Your task to perform on an android device: Open calendar and show me the second week of next month Image 0: 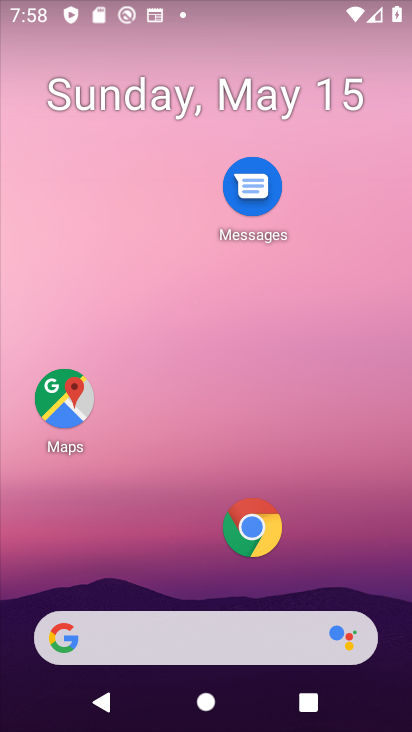
Step 0: press home button
Your task to perform on an android device: Open calendar and show me the second week of next month Image 1: 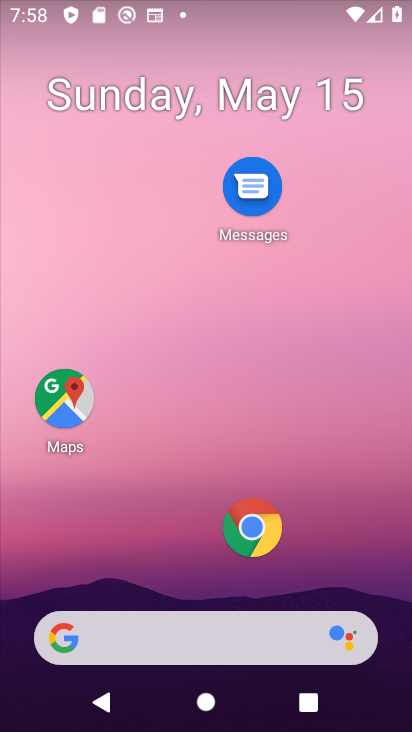
Step 1: drag from (138, 645) to (332, 95)
Your task to perform on an android device: Open calendar and show me the second week of next month Image 2: 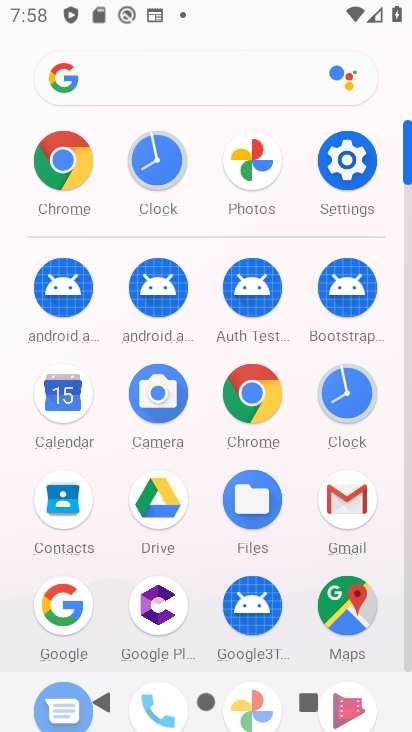
Step 2: click (69, 401)
Your task to perform on an android device: Open calendar and show me the second week of next month Image 3: 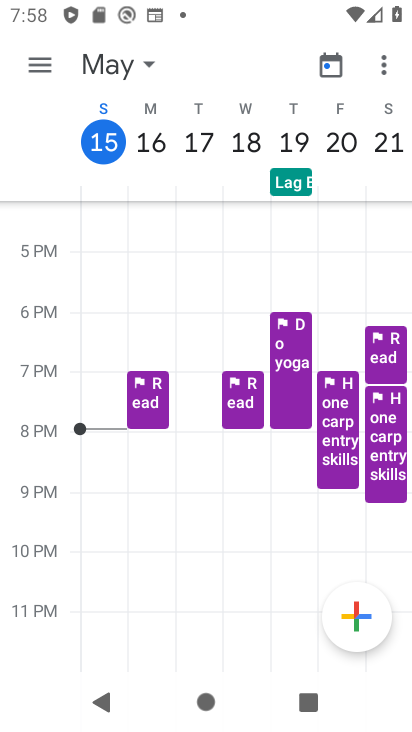
Step 3: click (117, 68)
Your task to perform on an android device: Open calendar and show me the second week of next month Image 4: 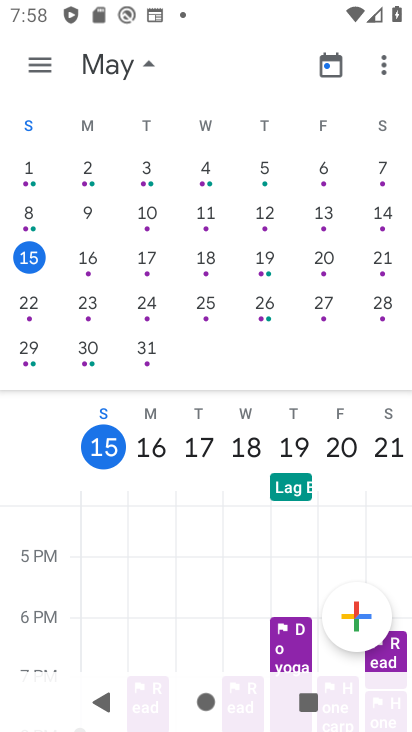
Step 4: drag from (340, 280) to (34, 282)
Your task to perform on an android device: Open calendar and show me the second week of next month Image 5: 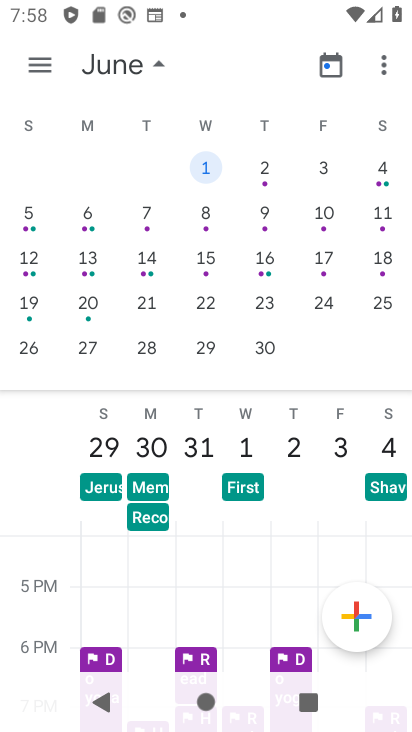
Step 5: click (27, 217)
Your task to perform on an android device: Open calendar and show me the second week of next month Image 6: 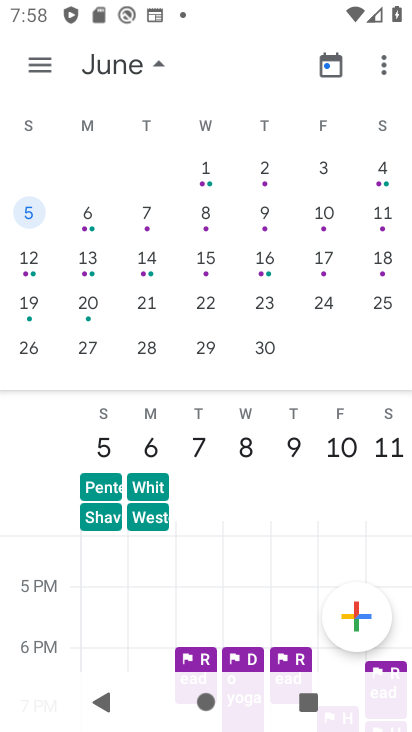
Step 6: click (35, 64)
Your task to perform on an android device: Open calendar and show me the second week of next month Image 7: 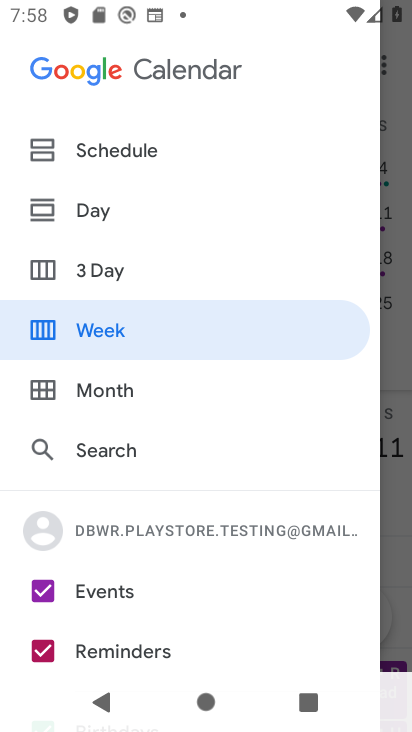
Step 7: click (144, 325)
Your task to perform on an android device: Open calendar and show me the second week of next month Image 8: 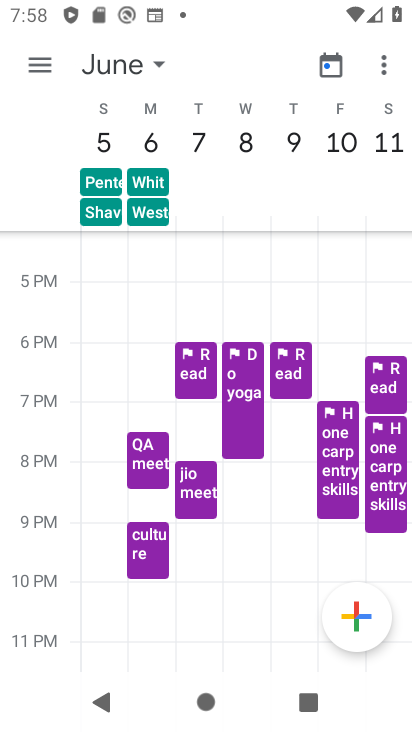
Step 8: task complete